Your task to perform on an android device: change text size in settings app Image 0: 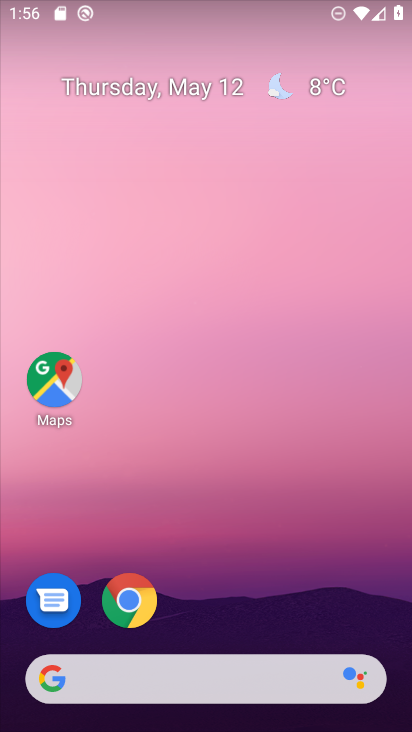
Step 0: drag from (210, 728) to (208, 186)
Your task to perform on an android device: change text size in settings app Image 1: 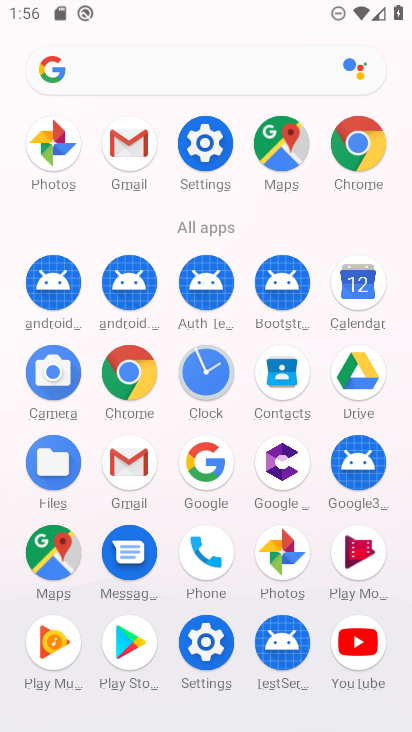
Step 1: click (194, 143)
Your task to perform on an android device: change text size in settings app Image 2: 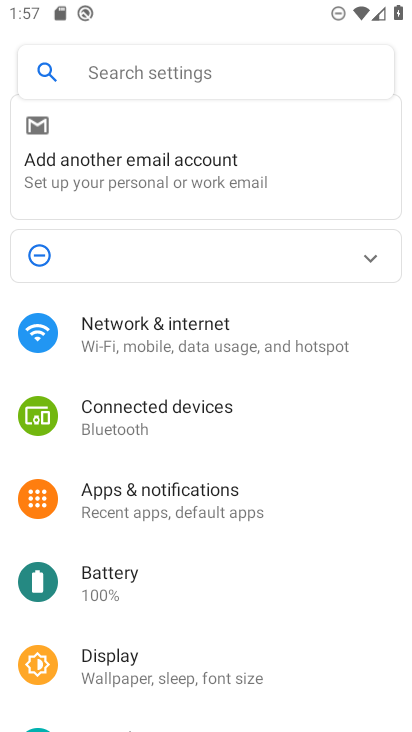
Step 2: click (187, 676)
Your task to perform on an android device: change text size in settings app Image 3: 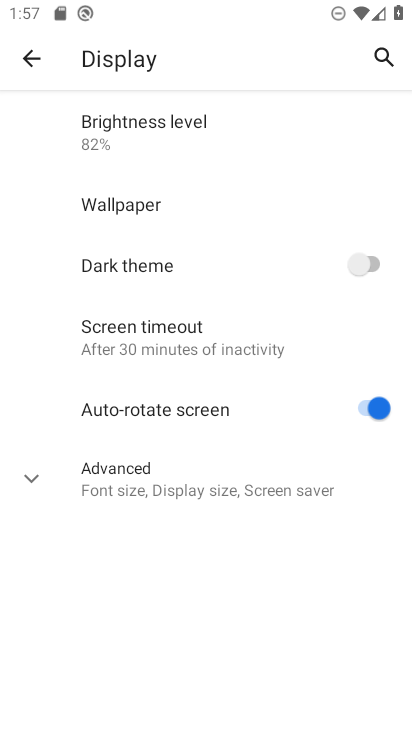
Step 3: click (144, 490)
Your task to perform on an android device: change text size in settings app Image 4: 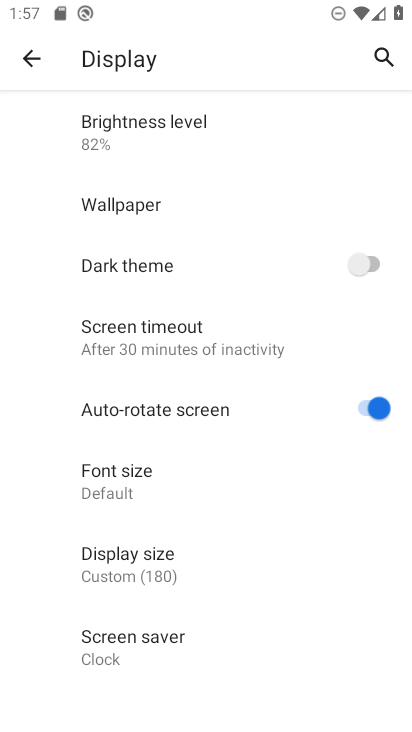
Step 4: click (125, 469)
Your task to perform on an android device: change text size in settings app Image 5: 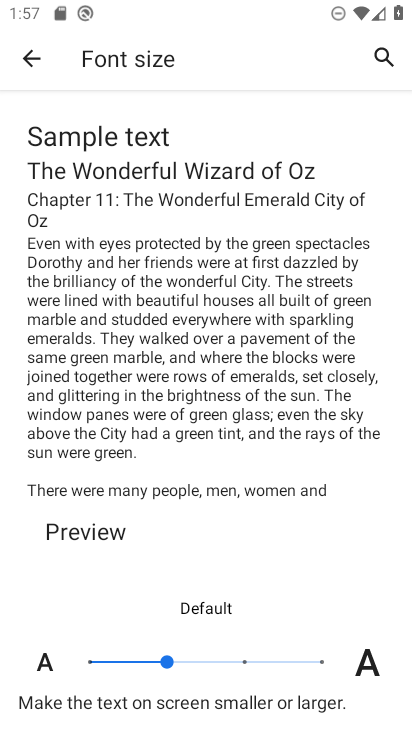
Step 5: click (247, 659)
Your task to perform on an android device: change text size in settings app Image 6: 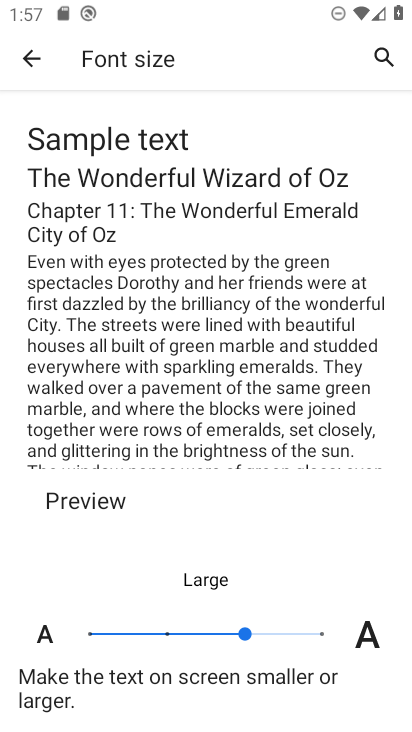
Step 6: task complete